Your task to perform on an android device: Is it going to rain tomorrow? Image 0: 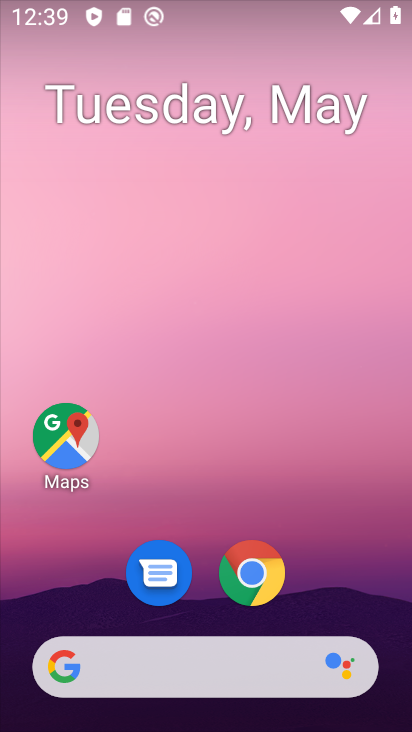
Step 0: drag from (370, 575) to (410, 34)
Your task to perform on an android device: Is it going to rain tomorrow? Image 1: 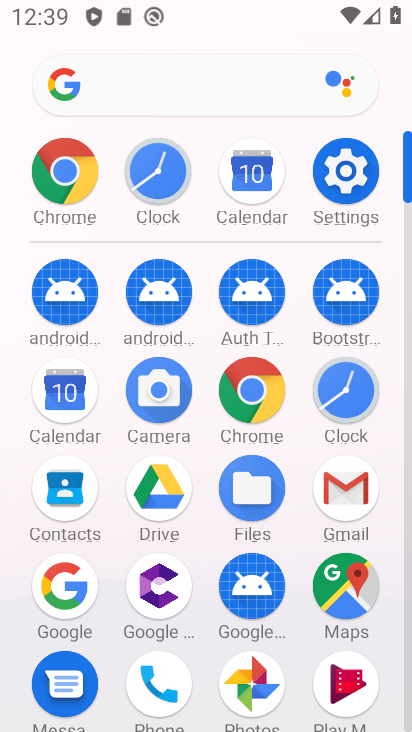
Step 1: press home button
Your task to perform on an android device: Is it going to rain tomorrow? Image 2: 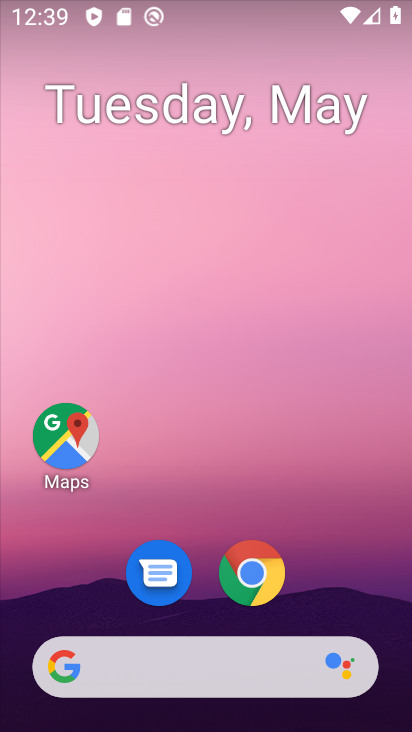
Step 2: click (53, 669)
Your task to perform on an android device: Is it going to rain tomorrow? Image 3: 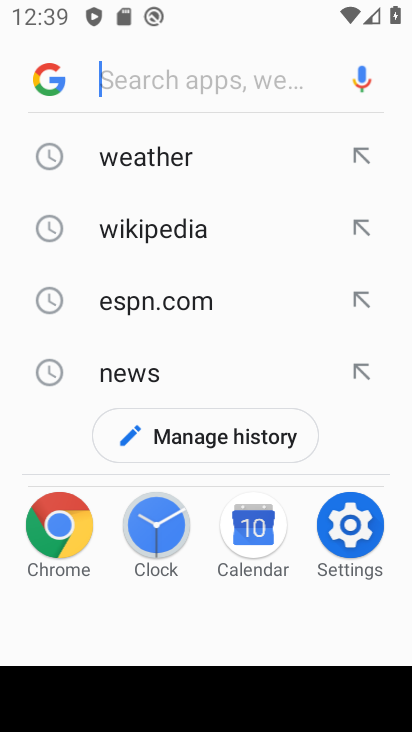
Step 3: click (52, 75)
Your task to perform on an android device: Is it going to rain tomorrow? Image 4: 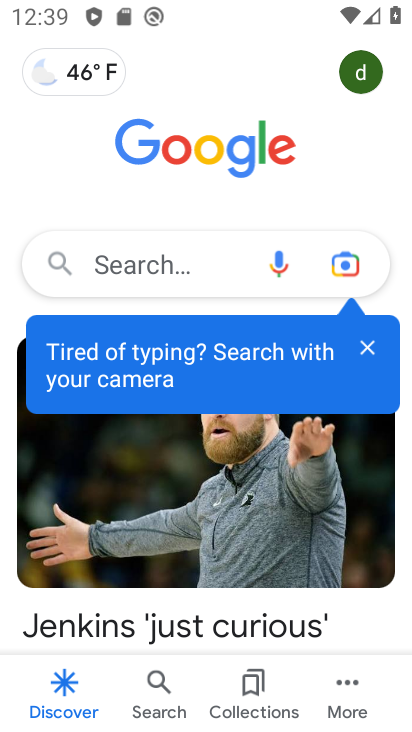
Step 4: click (366, 355)
Your task to perform on an android device: Is it going to rain tomorrow? Image 5: 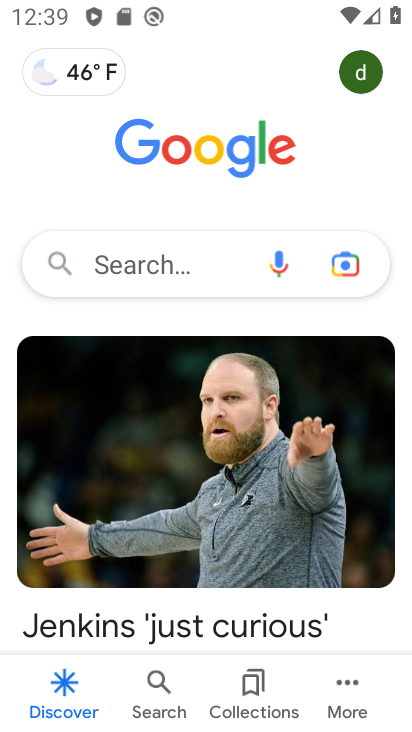
Step 5: click (65, 84)
Your task to perform on an android device: Is it going to rain tomorrow? Image 6: 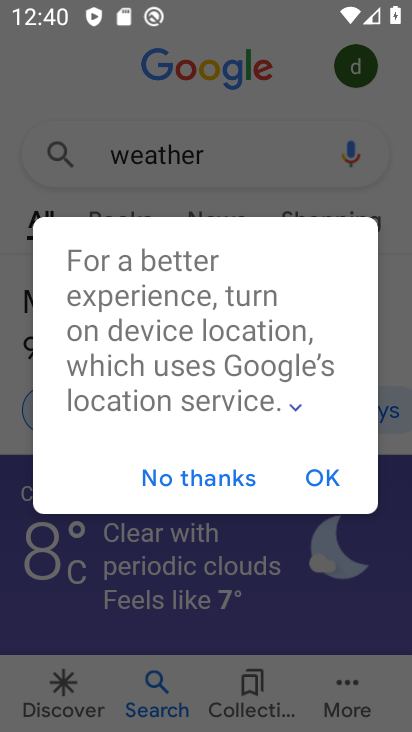
Step 6: drag from (216, 515) to (212, 301)
Your task to perform on an android device: Is it going to rain tomorrow? Image 7: 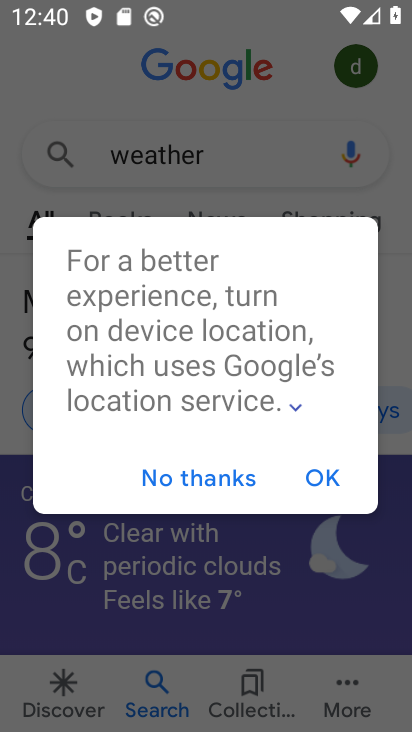
Step 7: click (215, 471)
Your task to perform on an android device: Is it going to rain tomorrow? Image 8: 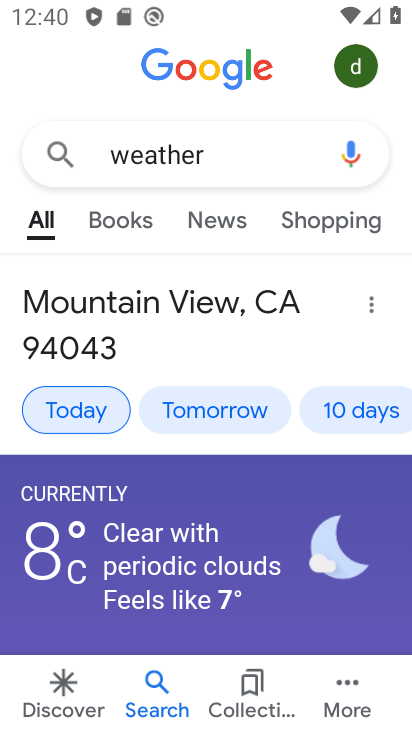
Step 8: click (205, 417)
Your task to perform on an android device: Is it going to rain tomorrow? Image 9: 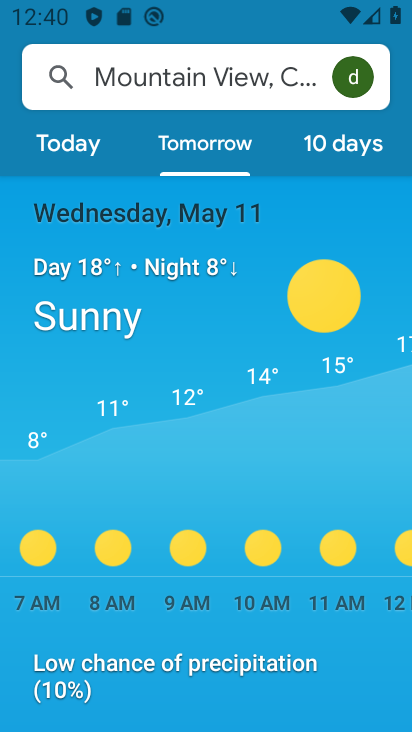
Step 9: task complete